Your task to perform on an android device: Play the last video I watched on Youtube Image 0: 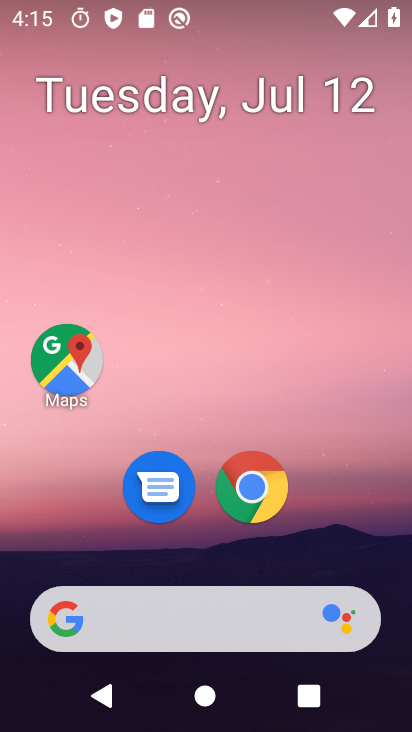
Step 0: drag from (167, 646) to (174, 247)
Your task to perform on an android device: Play the last video I watched on Youtube Image 1: 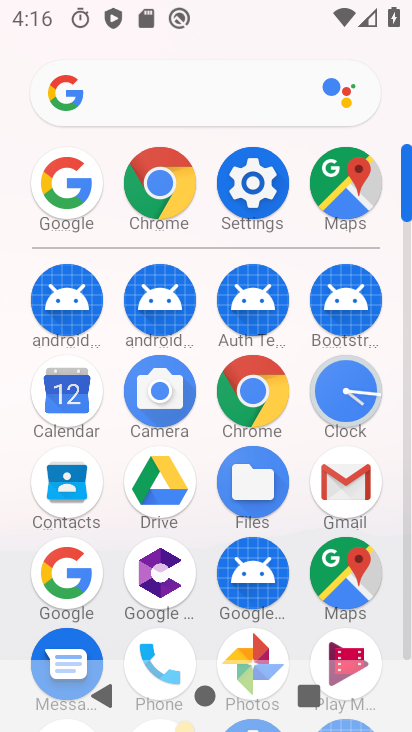
Step 1: drag from (232, 497) to (245, 208)
Your task to perform on an android device: Play the last video I watched on Youtube Image 2: 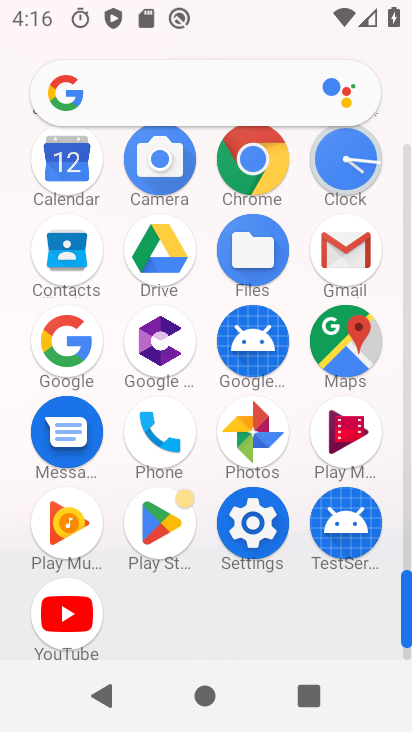
Step 2: click (65, 610)
Your task to perform on an android device: Play the last video I watched on Youtube Image 3: 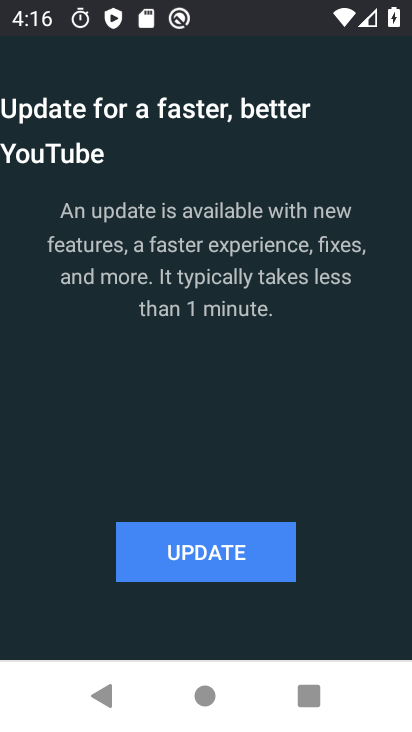
Step 3: click (207, 554)
Your task to perform on an android device: Play the last video I watched on Youtube Image 4: 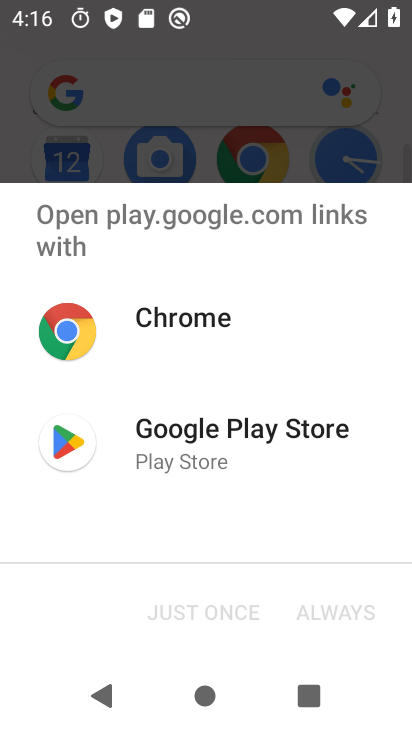
Step 4: click (207, 469)
Your task to perform on an android device: Play the last video I watched on Youtube Image 5: 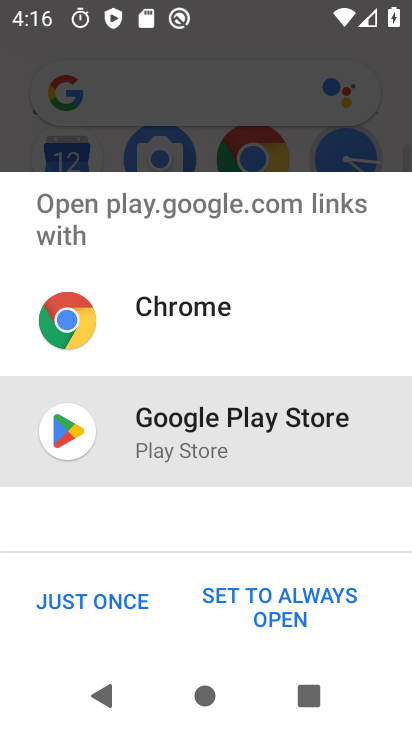
Step 5: click (112, 590)
Your task to perform on an android device: Play the last video I watched on Youtube Image 6: 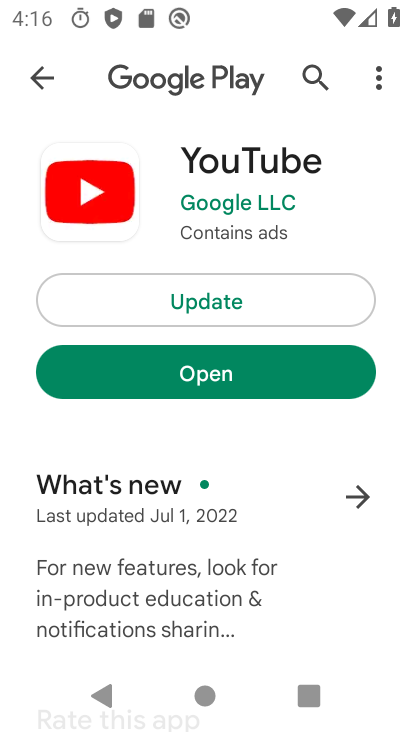
Step 6: click (232, 306)
Your task to perform on an android device: Play the last video I watched on Youtube Image 7: 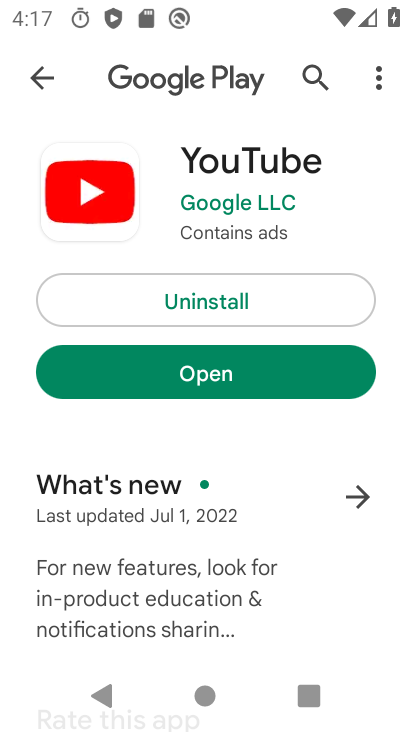
Step 7: task complete